Your task to perform on an android device: change the clock display to analog Image 0: 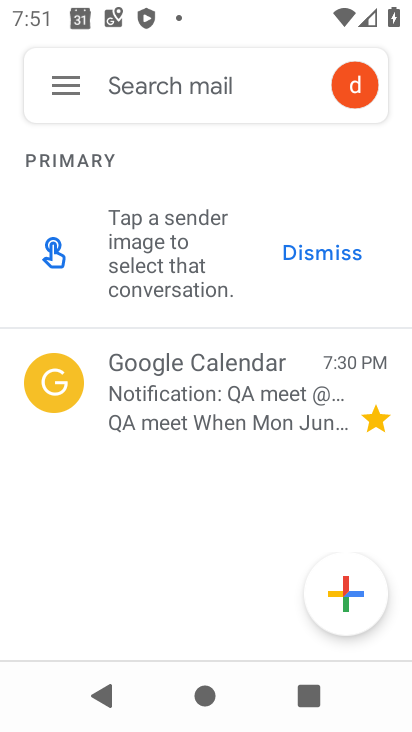
Step 0: press home button
Your task to perform on an android device: change the clock display to analog Image 1: 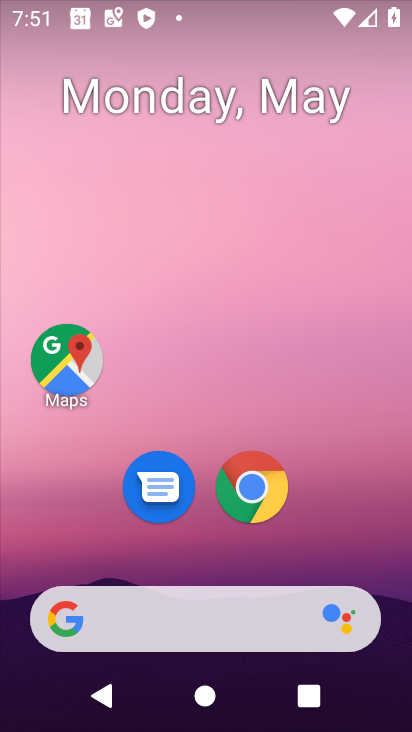
Step 1: drag from (374, 555) to (383, 144)
Your task to perform on an android device: change the clock display to analog Image 2: 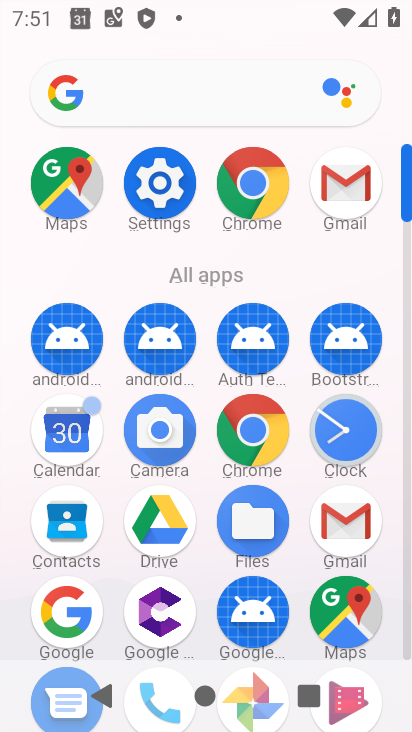
Step 2: click (359, 429)
Your task to perform on an android device: change the clock display to analog Image 3: 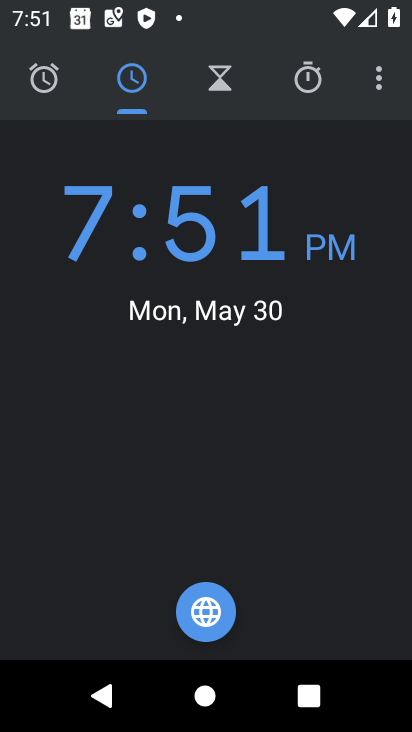
Step 3: click (380, 93)
Your task to perform on an android device: change the clock display to analog Image 4: 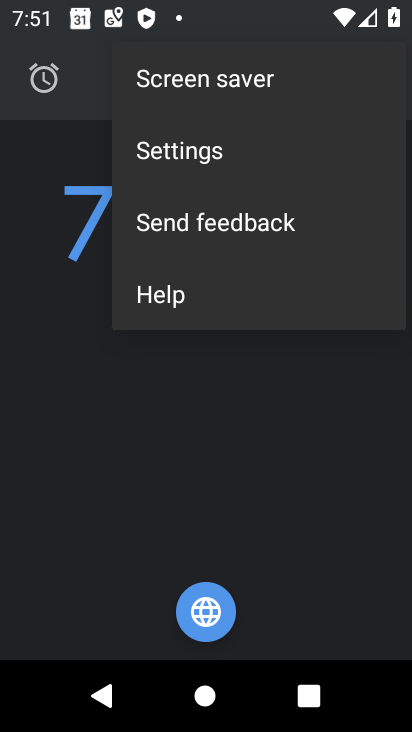
Step 4: click (238, 152)
Your task to perform on an android device: change the clock display to analog Image 5: 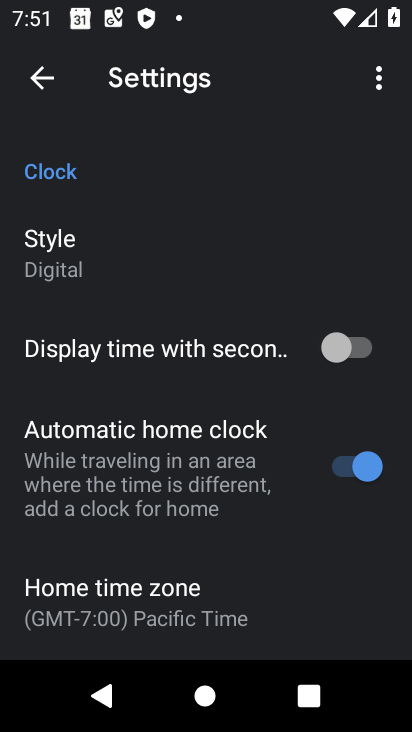
Step 5: drag from (359, 586) to (342, 382)
Your task to perform on an android device: change the clock display to analog Image 6: 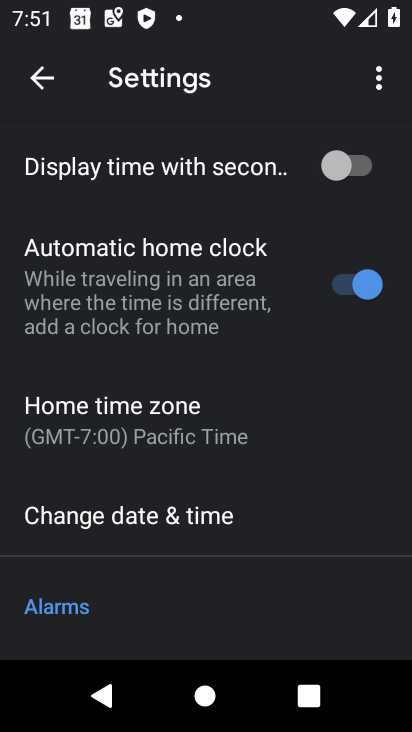
Step 6: drag from (354, 567) to (363, 426)
Your task to perform on an android device: change the clock display to analog Image 7: 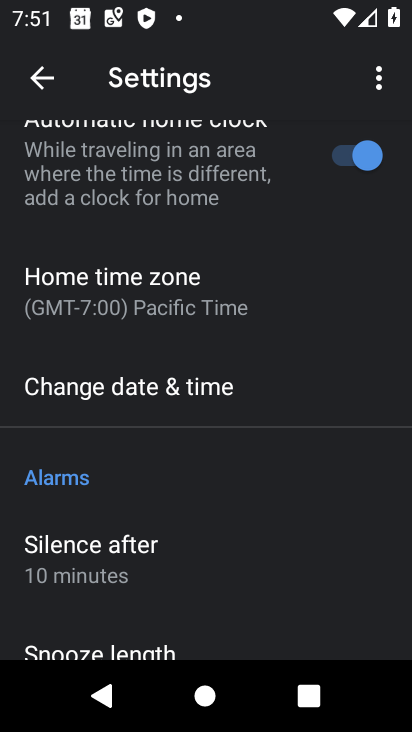
Step 7: drag from (367, 553) to (370, 414)
Your task to perform on an android device: change the clock display to analog Image 8: 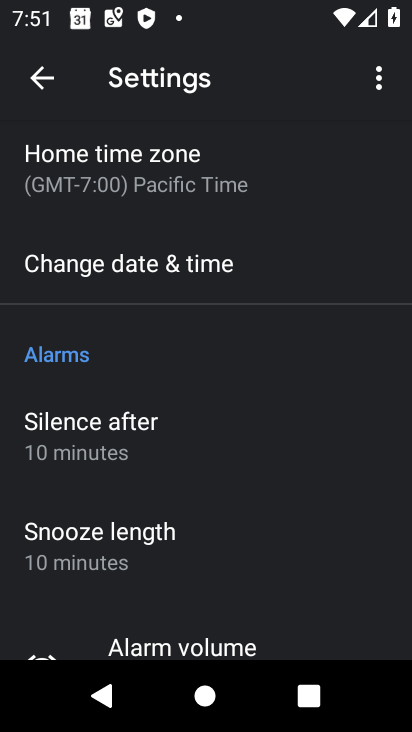
Step 8: drag from (371, 514) to (370, 409)
Your task to perform on an android device: change the clock display to analog Image 9: 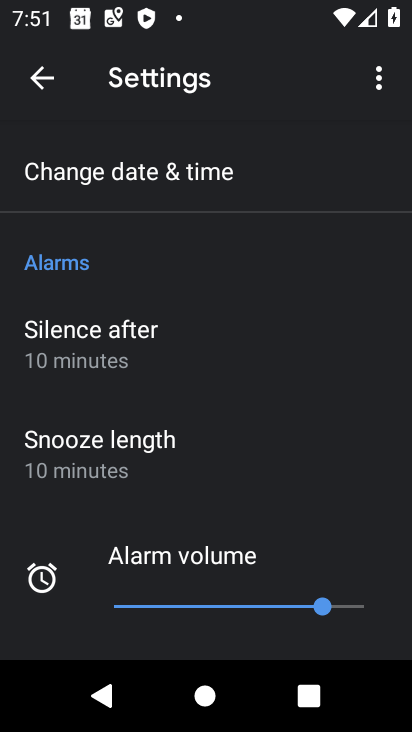
Step 9: drag from (338, 537) to (346, 412)
Your task to perform on an android device: change the clock display to analog Image 10: 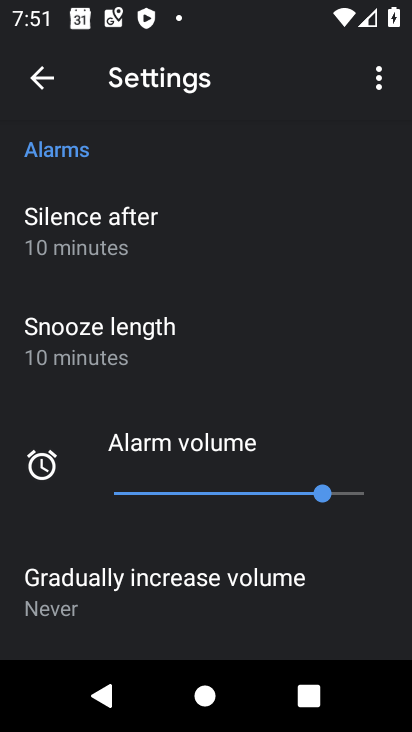
Step 10: drag from (354, 571) to (372, 383)
Your task to perform on an android device: change the clock display to analog Image 11: 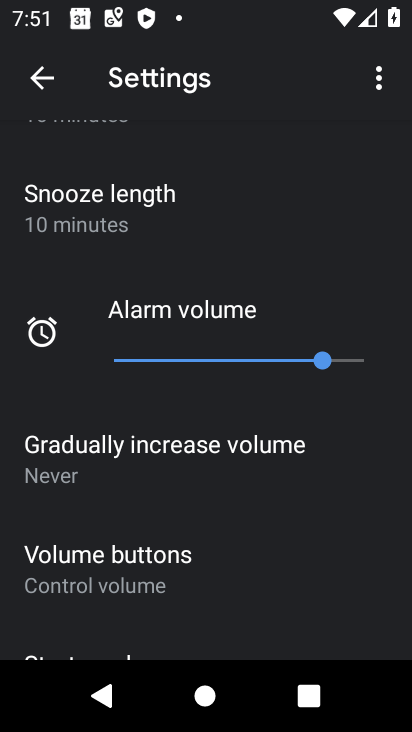
Step 11: drag from (350, 537) to (361, 389)
Your task to perform on an android device: change the clock display to analog Image 12: 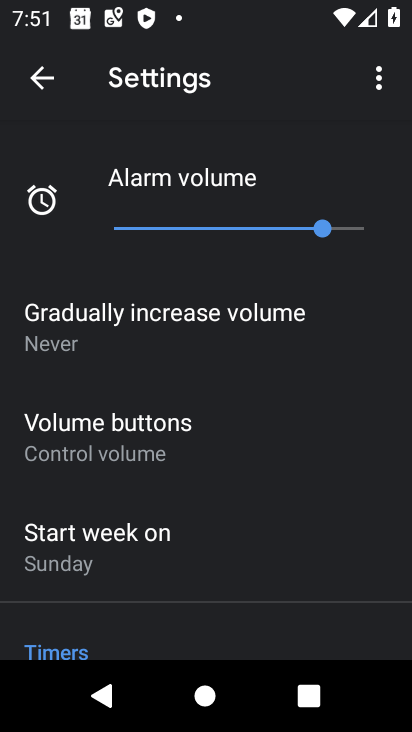
Step 12: drag from (359, 269) to (362, 381)
Your task to perform on an android device: change the clock display to analog Image 13: 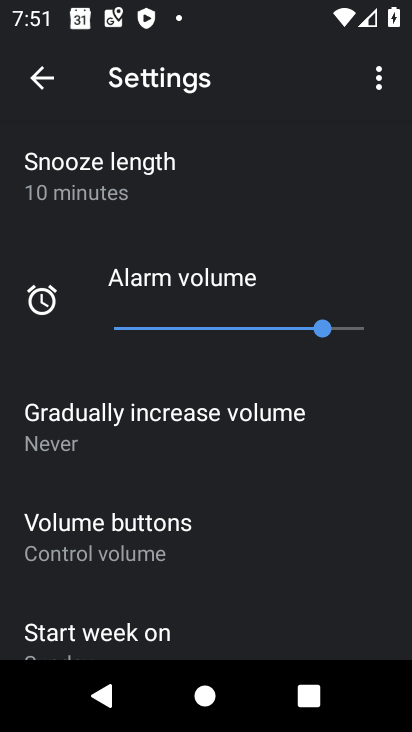
Step 13: drag from (363, 210) to (366, 330)
Your task to perform on an android device: change the clock display to analog Image 14: 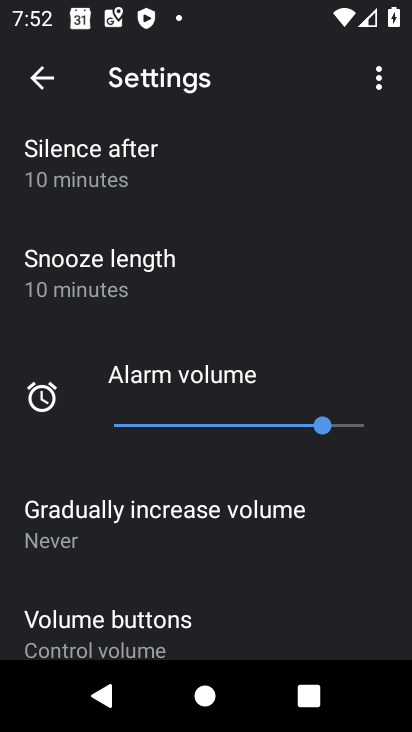
Step 14: drag from (372, 197) to (371, 316)
Your task to perform on an android device: change the clock display to analog Image 15: 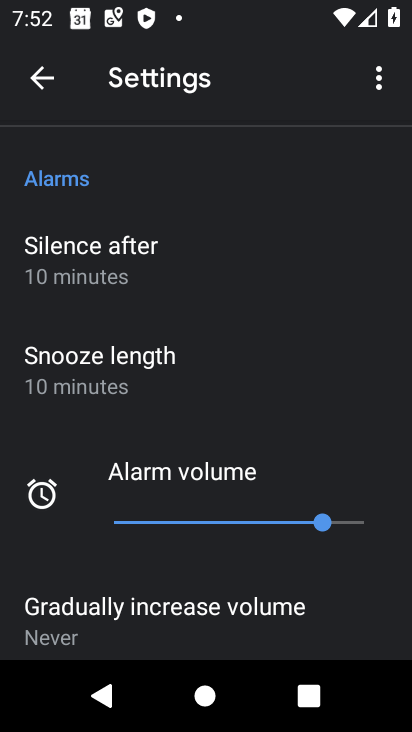
Step 15: drag from (374, 198) to (367, 307)
Your task to perform on an android device: change the clock display to analog Image 16: 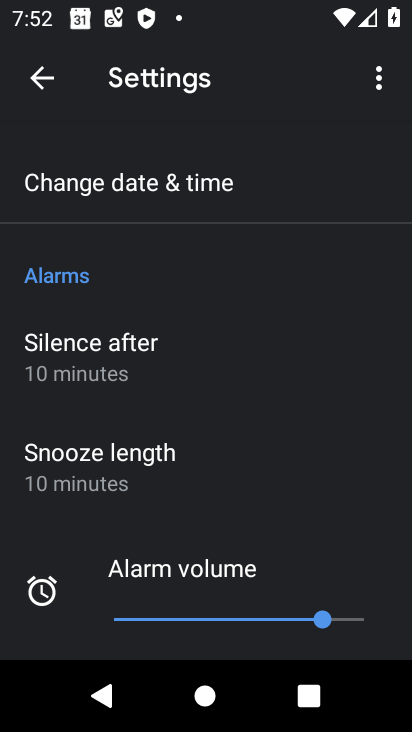
Step 16: drag from (367, 181) to (364, 322)
Your task to perform on an android device: change the clock display to analog Image 17: 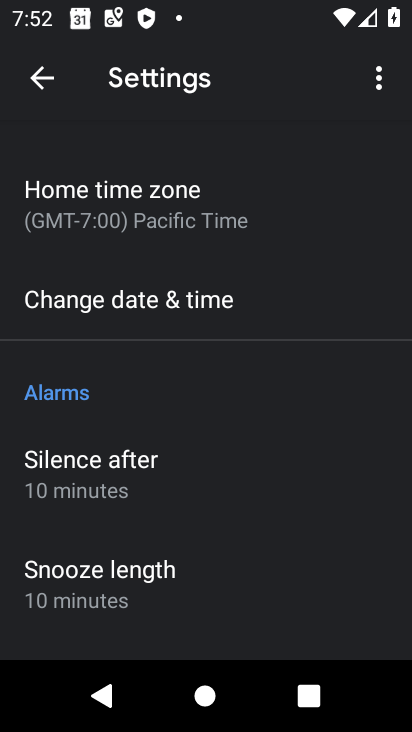
Step 17: drag from (341, 192) to (344, 349)
Your task to perform on an android device: change the clock display to analog Image 18: 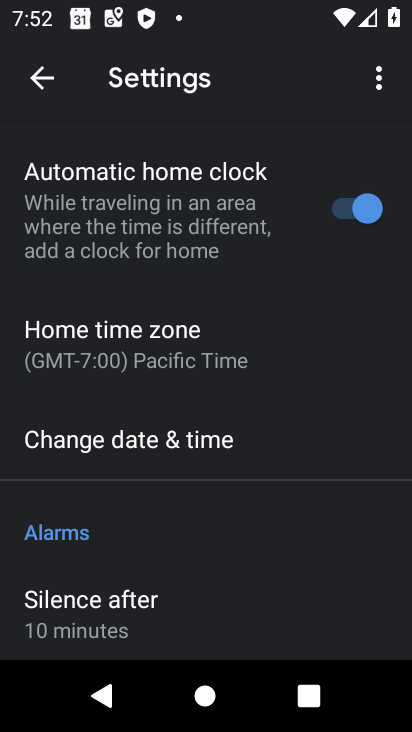
Step 18: drag from (290, 157) to (281, 326)
Your task to perform on an android device: change the clock display to analog Image 19: 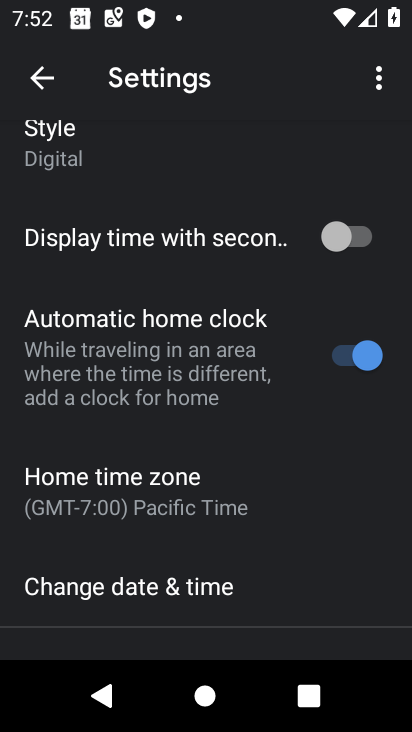
Step 19: click (64, 153)
Your task to perform on an android device: change the clock display to analog Image 20: 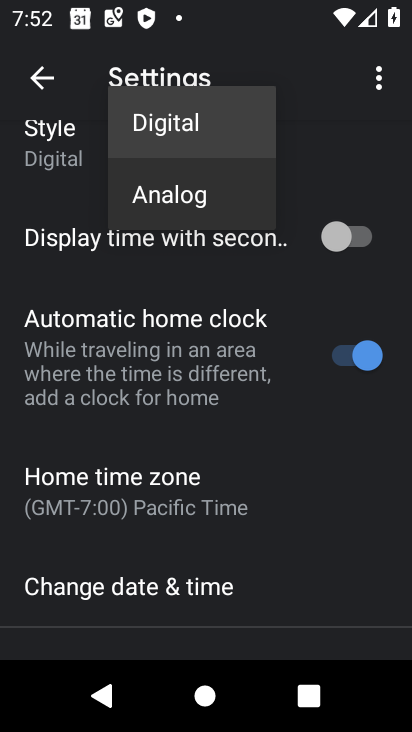
Step 20: click (195, 205)
Your task to perform on an android device: change the clock display to analog Image 21: 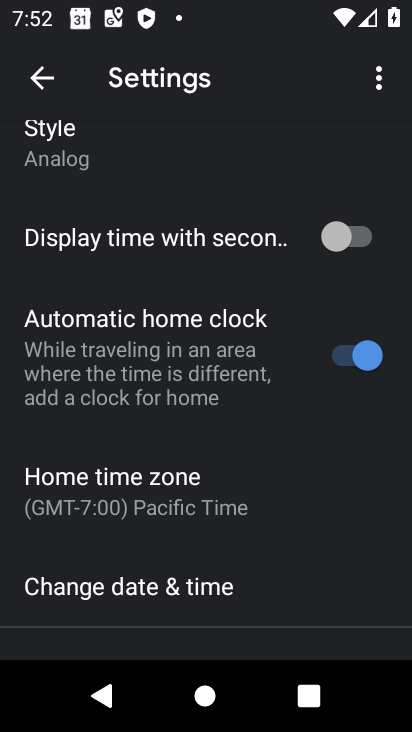
Step 21: task complete